Your task to perform on an android device: Search for vegetarian restaurants on Maps Image 0: 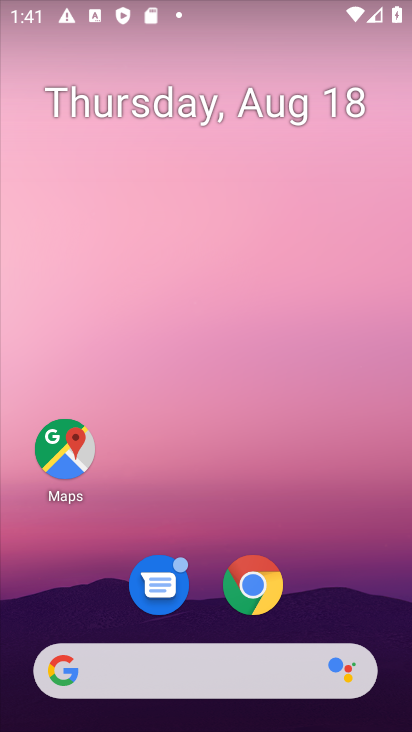
Step 0: click (62, 449)
Your task to perform on an android device: Search for vegetarian restaurants on Maps Image 1: 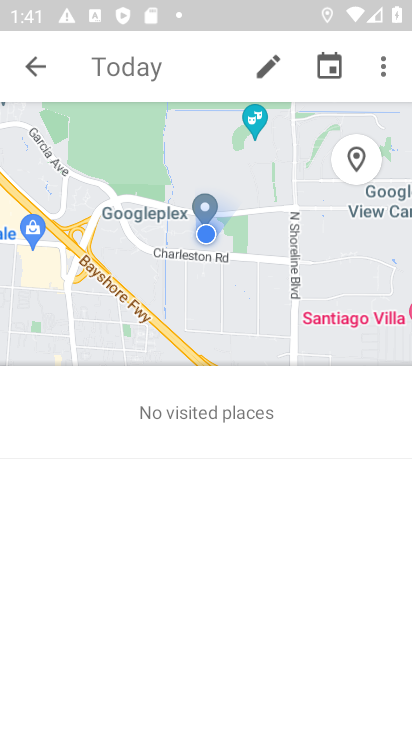
Step 1: click (37, 57)
Your task to perform on an android device: Search for vegetarian restaurants on Maps Image 2: 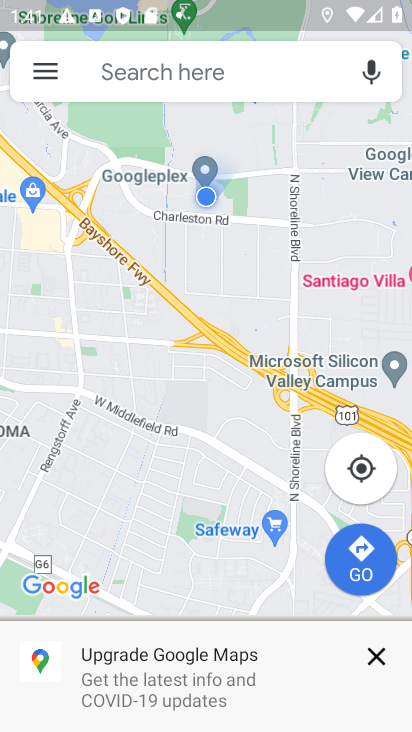
Step 2: drag from (146, 201) to (152, 420)
Your task to perform on an android device: Search for vegetarian restaurants on Maps Image 3: 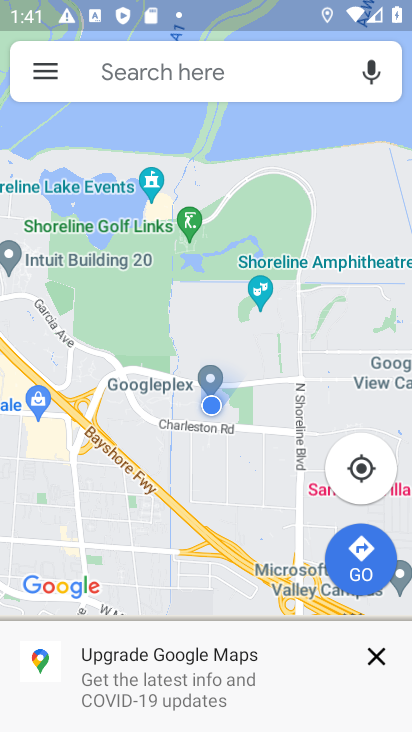
Step 3: click (189, 71)
Your task to perform on an android device: Search for vegetarian restaurants on Maps Image 4: 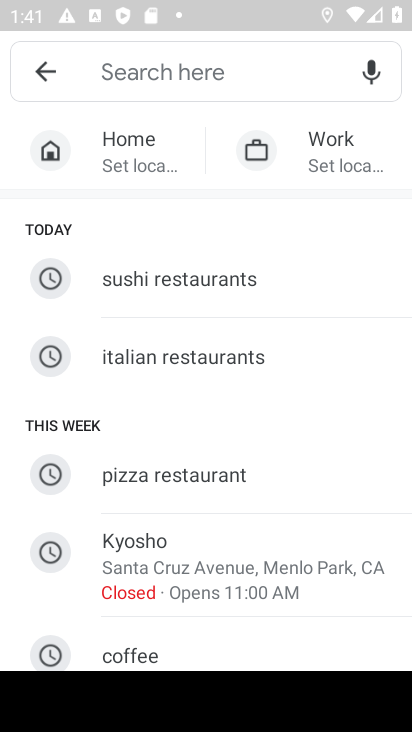
Step 4: drag from (229, 466) to (230, 251)
Your task to perform on an android device: Search for vegetarian restaurants on Maps Image 5: 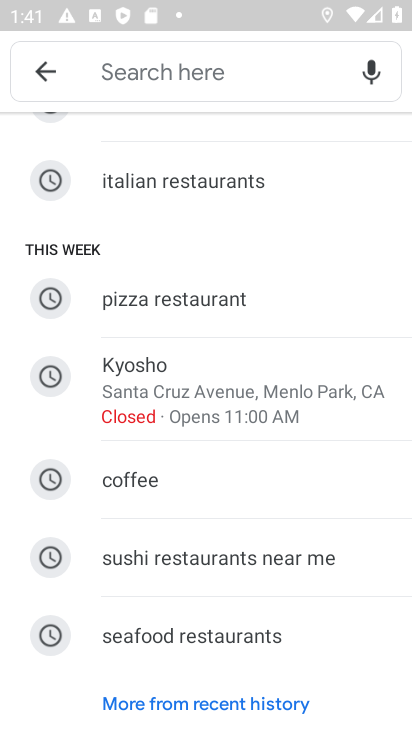
Step 5: drag from (232, 322) to (249, 584)
Your task to perform on an android device: Search for vegetarian restaurants on Maps Image 6: 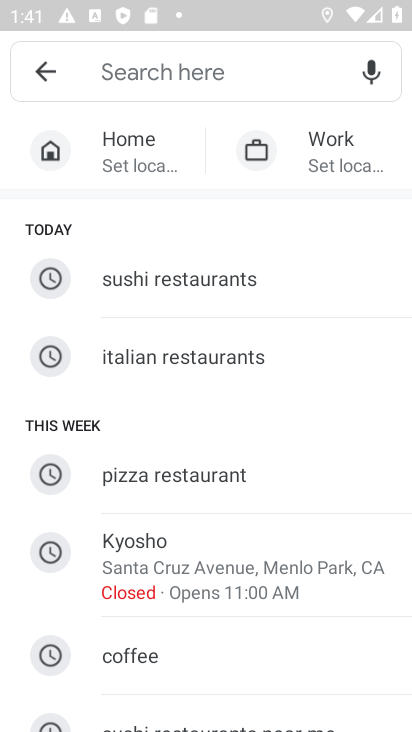
Step 6: click (246, 68)
Your task to perform on an android device: Search for vegetarian restaurants on Maps Image 7: 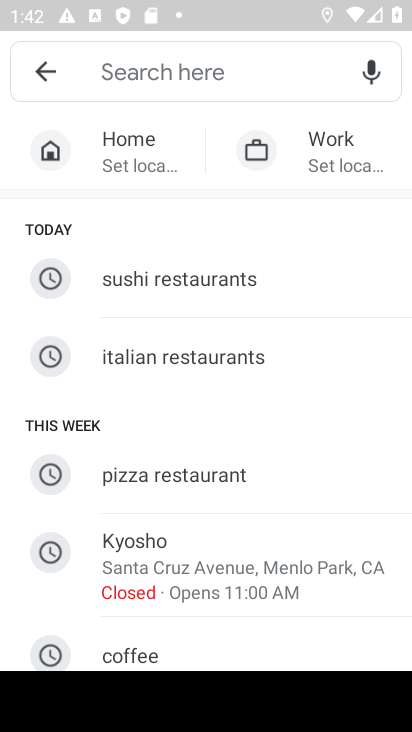
Step 7: type "vegitarian restaurants"
Your task to perform on an android device: Search for vegetarian restaurants on Maps Image 8: 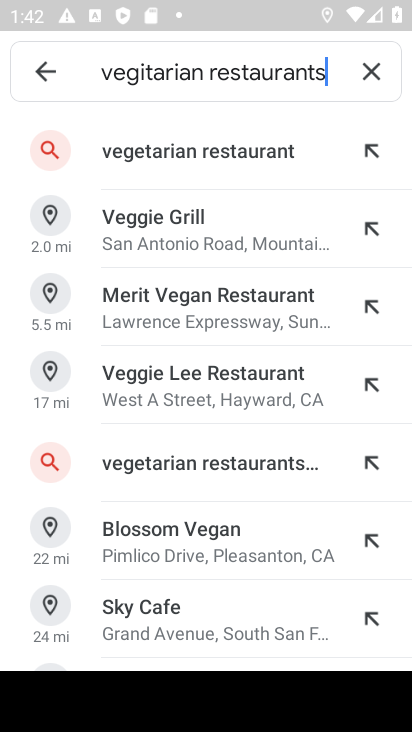
Step 8: click (193, 149)
Your task to perform on an android device: Search for vegetarian restaurants on Maps Image 9: 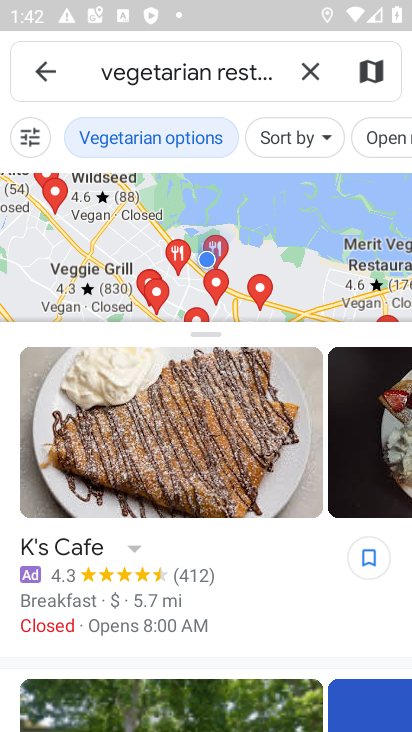
Step 9: task complete